Your task to perform on an android device: Open settings Image 0: 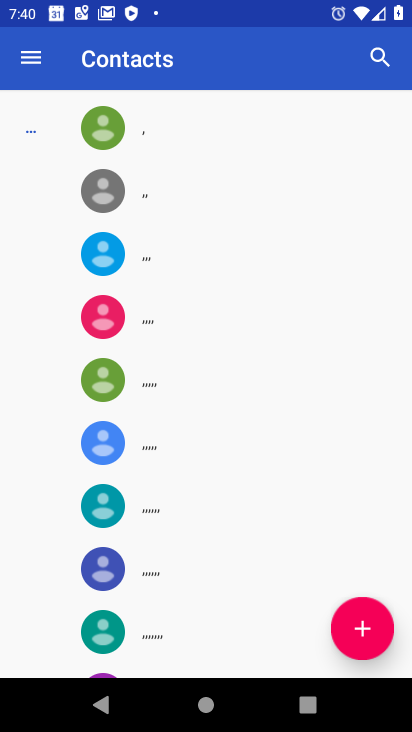
Step 0: press home button
Your task to perform on an android device: Open settings Image 1: 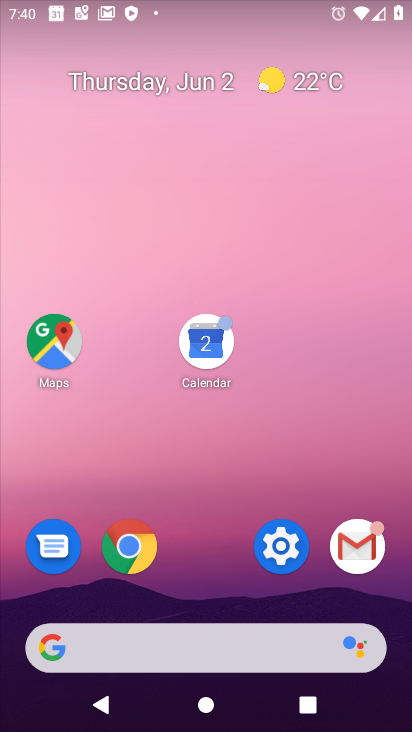
Step 1: click (295, 540)
Your task to perform on an android device: Open settings Image 2: 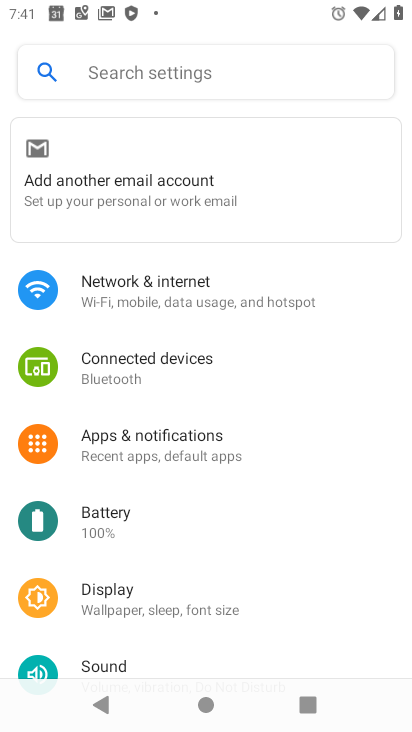
Step 2: task complete